Your task to perform on an android device: Go to Android settings Image 0: 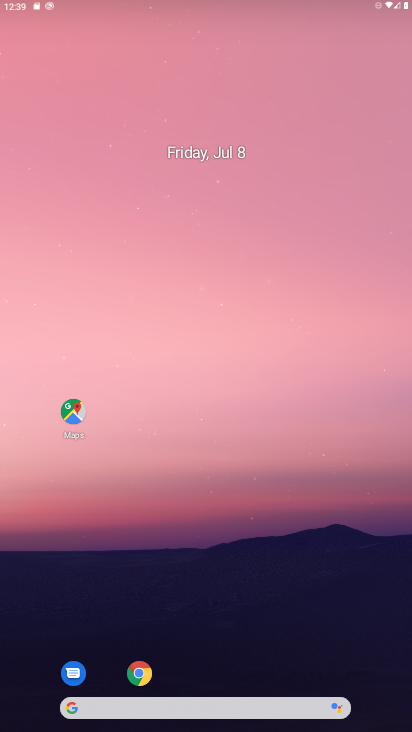
Step 0: drag from (385, 709) to (276, 68)
Your task to perform on an android device: Go to Android settings Image 1: 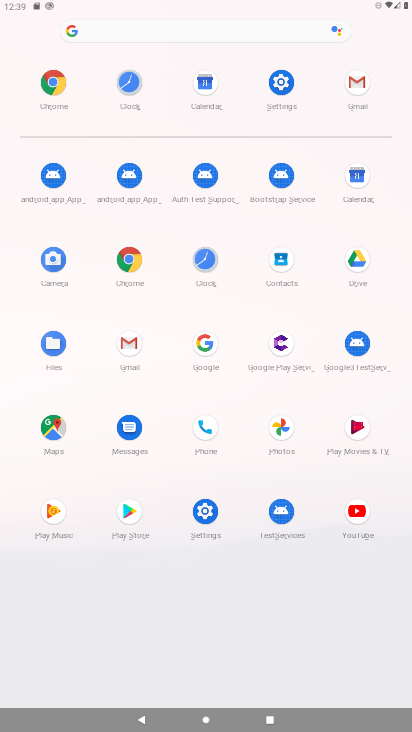
Step 1: click (285, 89)
Your task to perform on an android device: Go to Android settings Image 2: 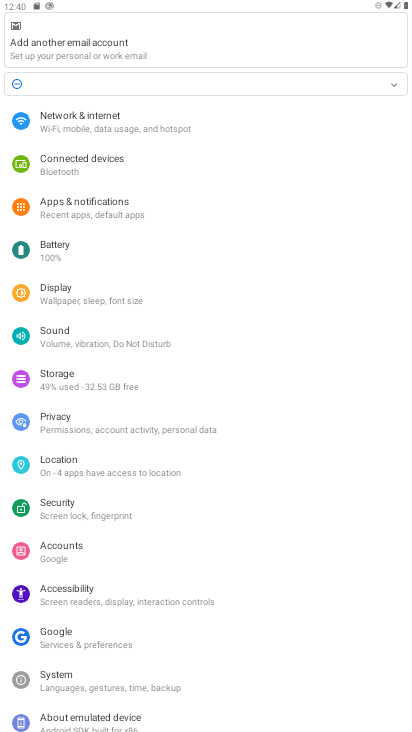
Step 2: task complete